Your task to perform on an android device: turn off notifications settings in the gmail app Image 0: 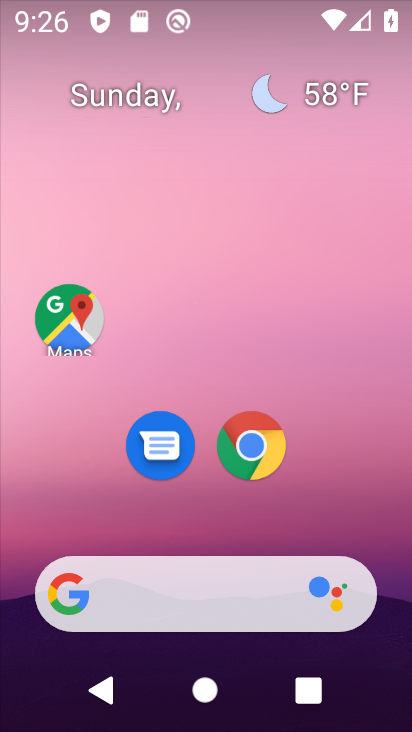
Step 0: drag from (219, 564) to (211, 192)
Your task to perform on an android device: turn off notifications settings in the gmail app Image 1: 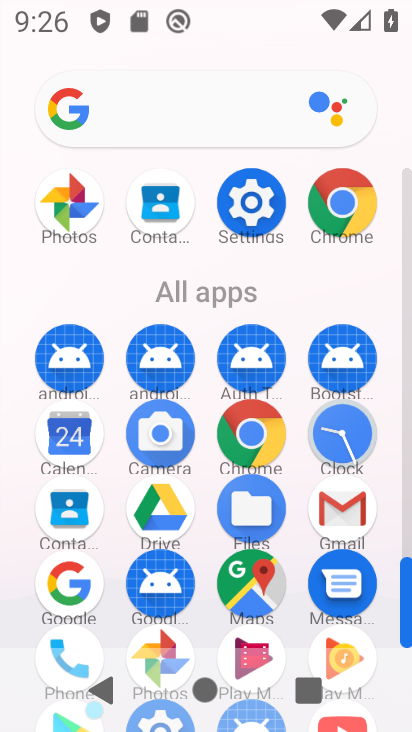
Step 1: click (326, 509)
Your task to perform on an android device: turn off notifications settings in the gmail app Image 2: 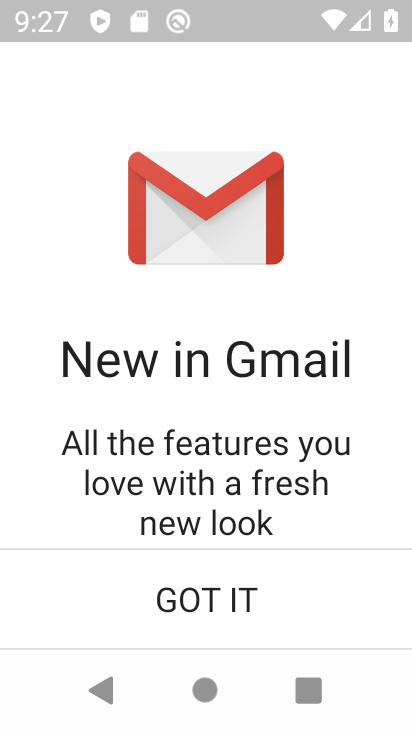
Step 2: click (217, 586)
Your task to perform on an android device: turn off notifications settings in the gmail app Image 3: 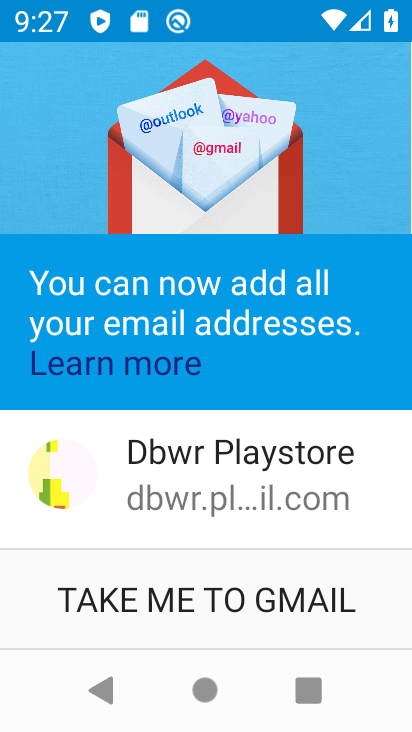
Step 3: click (214, 597)
Your task to perform on an android device: turn off notifications settings in the gmail app Image 4: 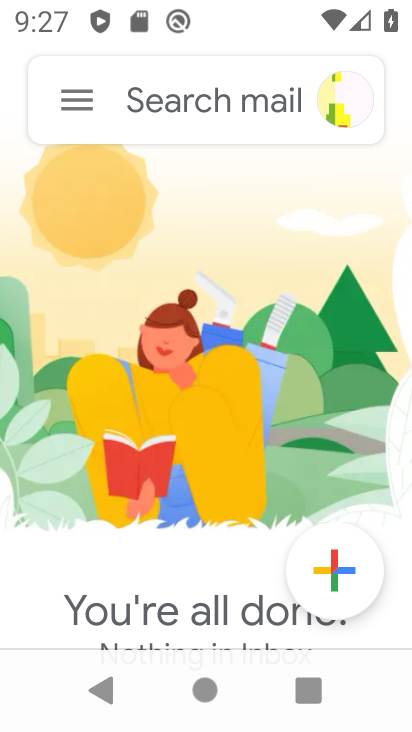
Step 4: click (66, 95)
Your task to perform on an android device: turn off notifications settings in the gmail app Image 5: 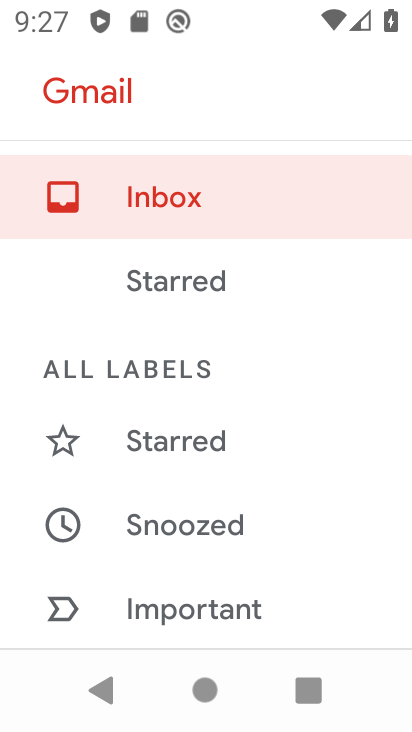
Step 5: drag from (134, 493) to (213, 127)
Your task to perform on an android device: turn off notifications settings in the gmail app Image 6: 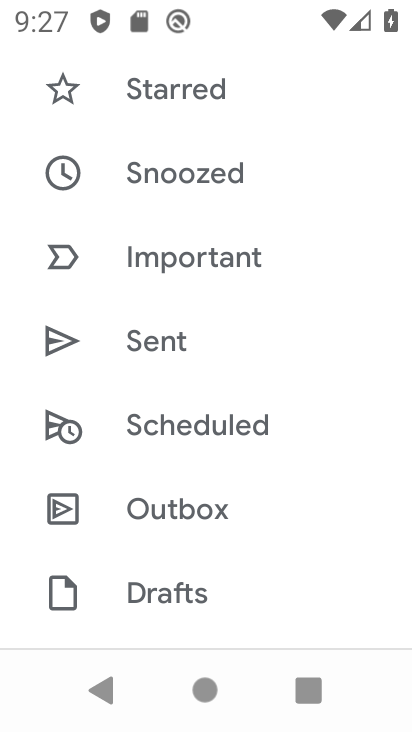
Step 6: drag from (196, 587) to (269, 34)
Your task to perform on an android device: turn off notifications settings in the gmail app Image 7: 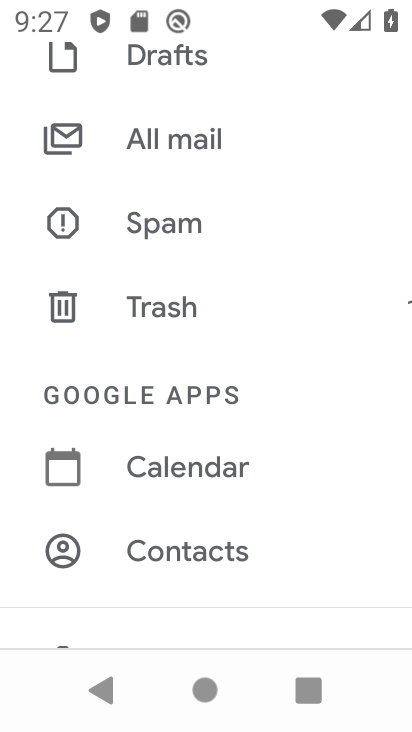
Step 7: drag from (235, 433) to (251, 29)
Your task to perform on an android device: turn off notifications settings in the gmail app Image 8: 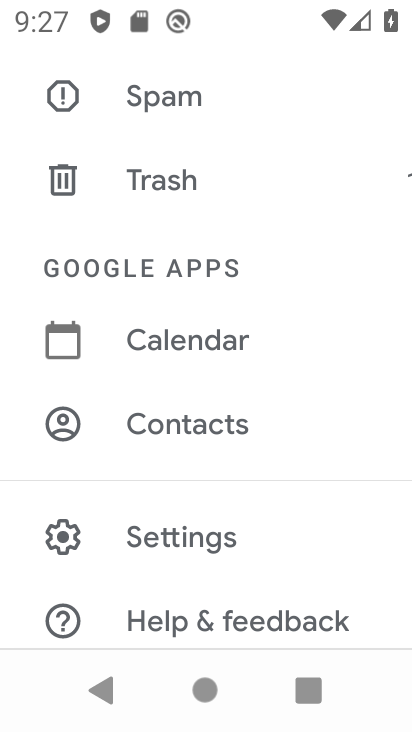
Step 8: click (205, 494)
Your task to perform on an android device: turn off notifications settings in the gmail app Image 9: 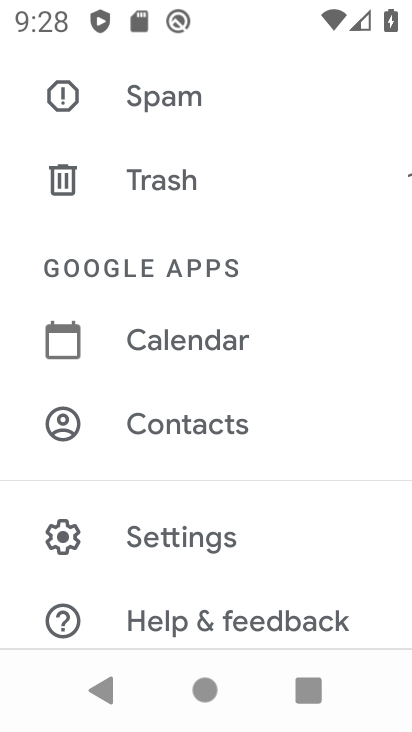
Step 9: click (161, 538)
Your task to perform on an android device: turn off notifications settings in the gmail app Image 10: 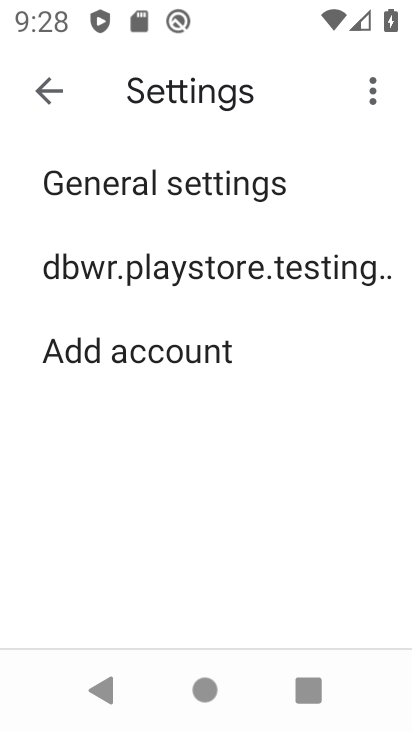
Step 10: click (273, 269)
Your task to perform on an android device: turn off notifications settings in the gmail app Image 11: 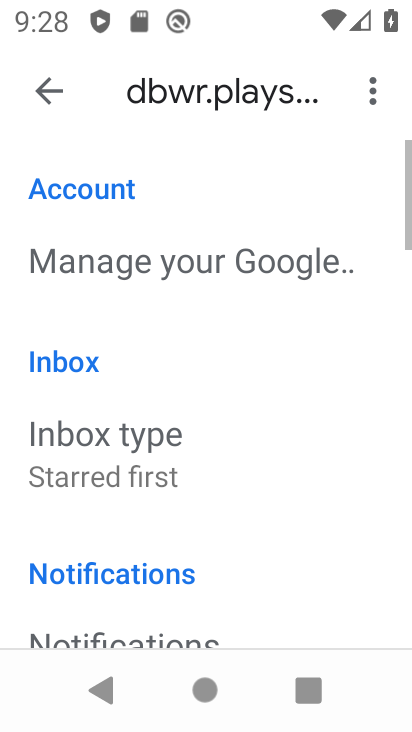
Step 11: drag from (160, 493) to (216, 60)
Your task to perform on an android device: turn off notifications settings in the gmail app Image 12: 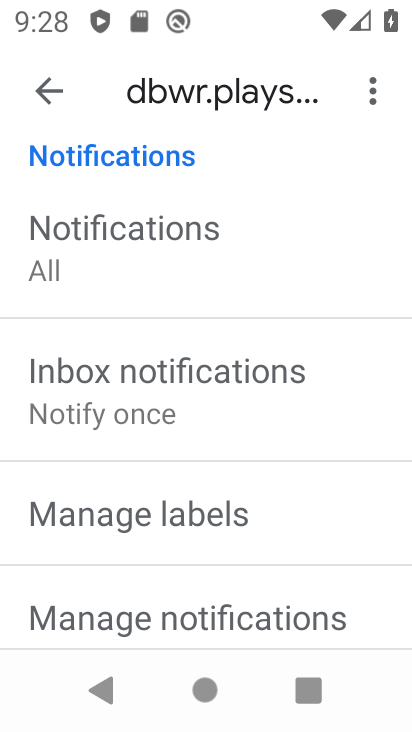
Step 12: drag from (167, 392) to (253, 41)
Your task to perform on an android device: turn off notifications settings in the gmail app Image 13: 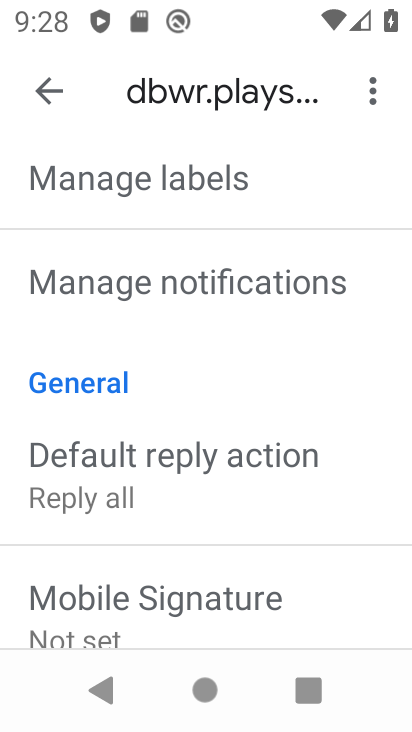
Step 13: click (239, 281)
Your task to perform on an android device: turn off notifications settings in the gmail app Image 14: 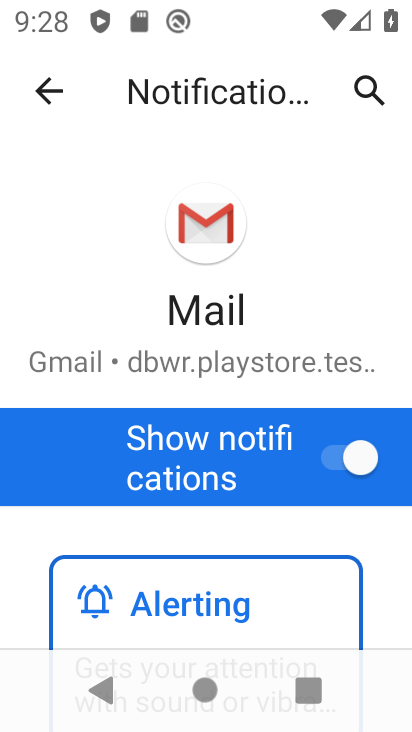
Step 14: click (339, 459)
Your task to perform on an android device: turn off notifications settings in the gmail app Image 15: 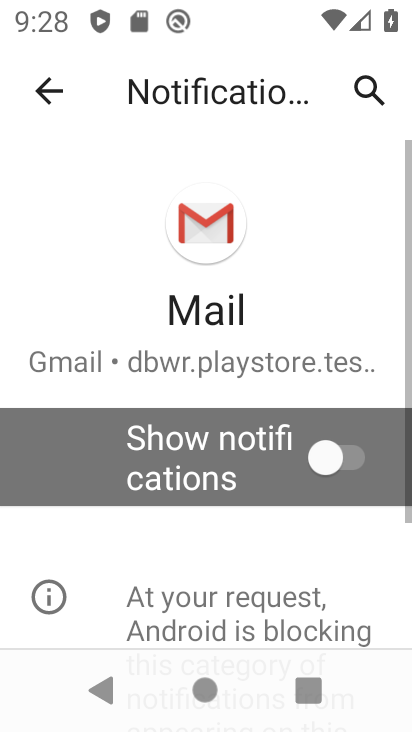
Step 15: task complete